Your task to perform on an android device: Go to accessibility settings Image 0: 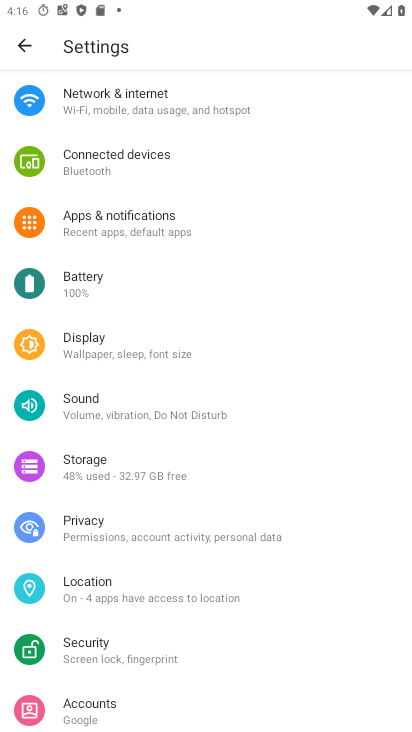
Step 0: drag from (207, 686) to (187, 164)
Your task to perform on an android device: Go to accessibility settings Image 1: 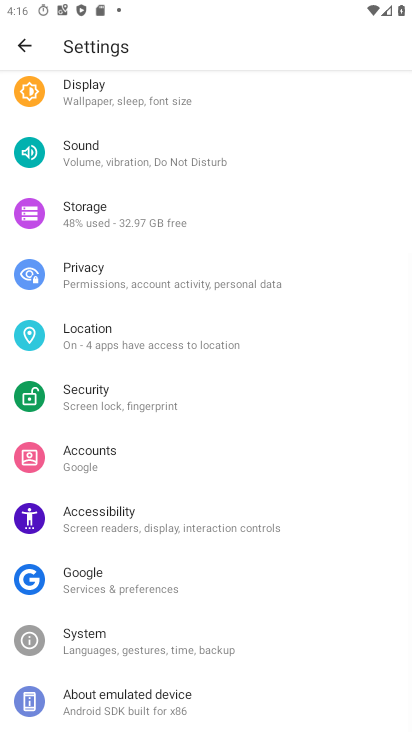
Step 1: click (160, 533)
Your task to perform on an android device: Go to accessibility settings Image 2: 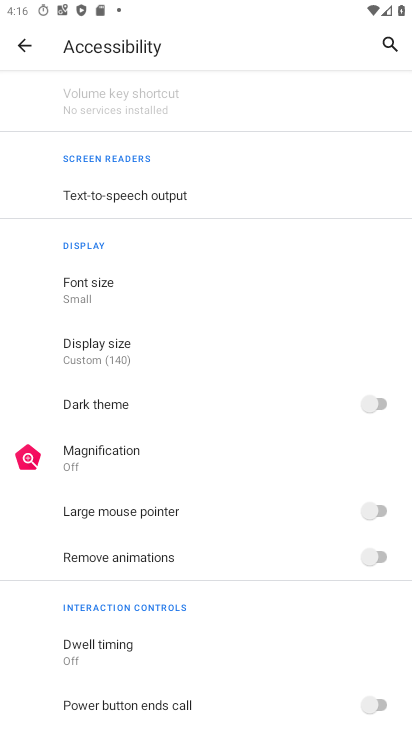
Step 2: task complete